Your task to perform on an android device: star an email in the gmail app Image 0: 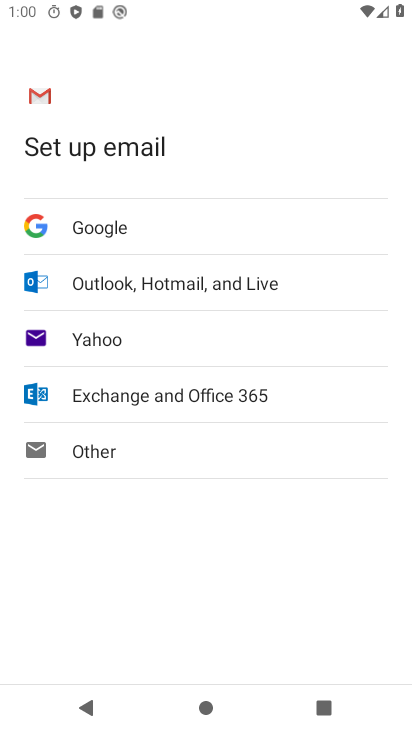
Step 0: press home button
Your task to perform on an android device: star an email in the gmail app Image 1: 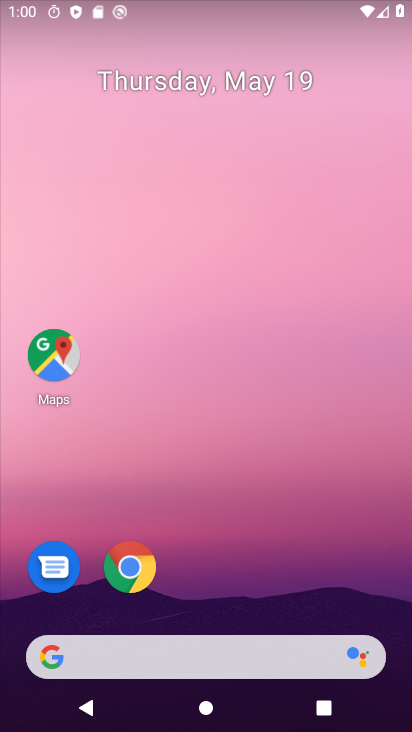
Step 1: drag from (172, 651) to (316, 246)
Your task to perform on an android device: star an email in the gmail app Image 2: 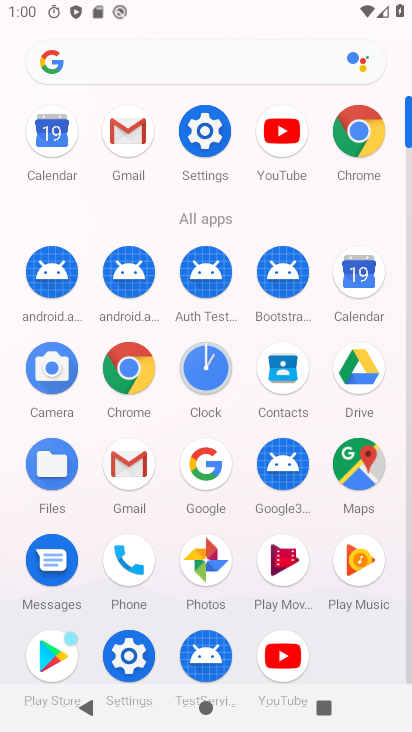
Step 2: click (130, 127)
Your task to perform on an android device: star an email in the gmail app Image 3: 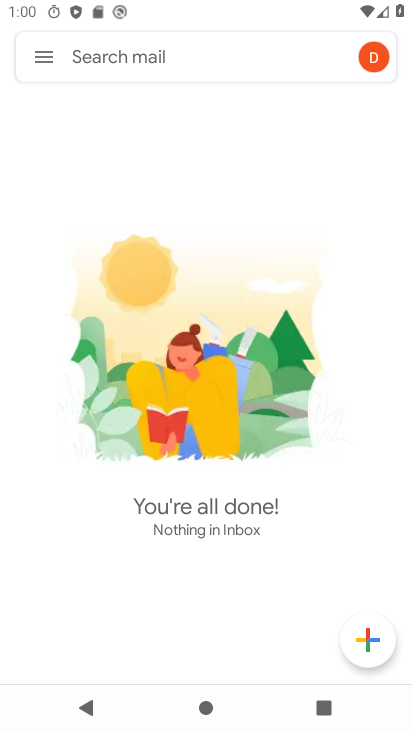
Step 3: task complete